Your task to perform on an android device: turn notification dots on Image 0: 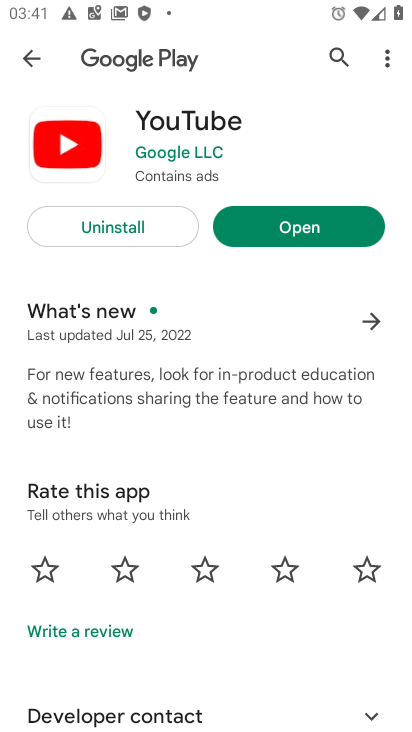
Step 0: press home button
Your task to perform on an android device: turn notification dots on Image 1: 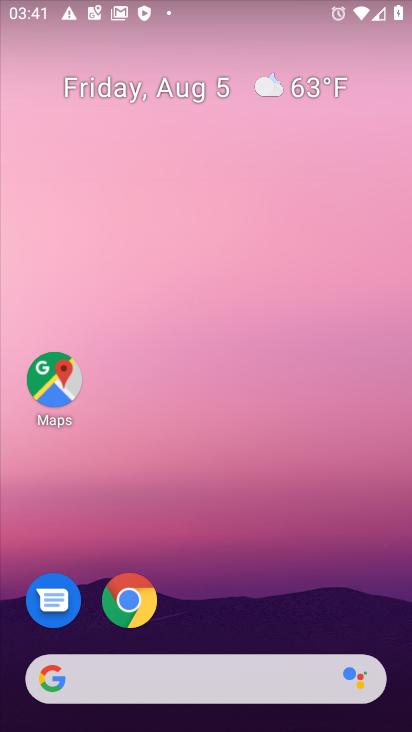
Step 1: drag from (170, 681) to (210, 44)
Your task to perform on an android device: turn notification dots on Image 2: 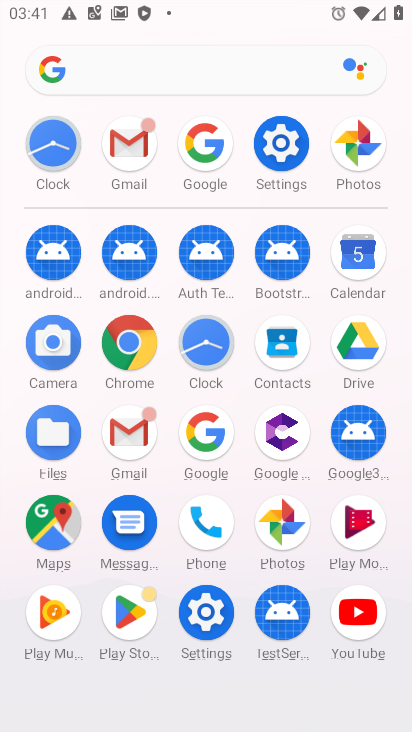
Step 2: click (277, 144)
Your task to perform on an android device: turn notification dots on Image 3: 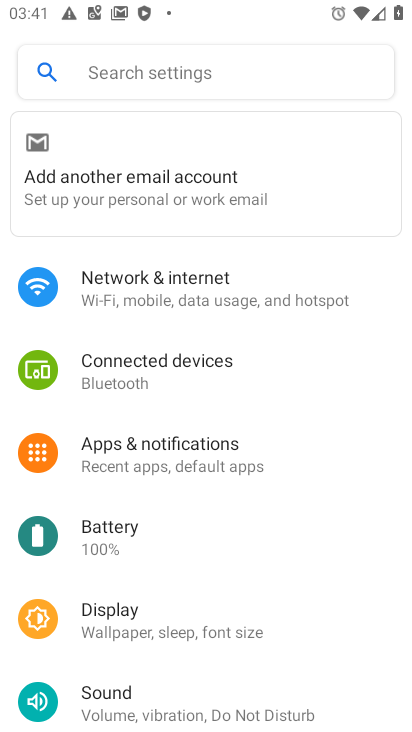
Step 3: click (199, 459)
Your task to perform on an android device: turn notification dots on Image 4: 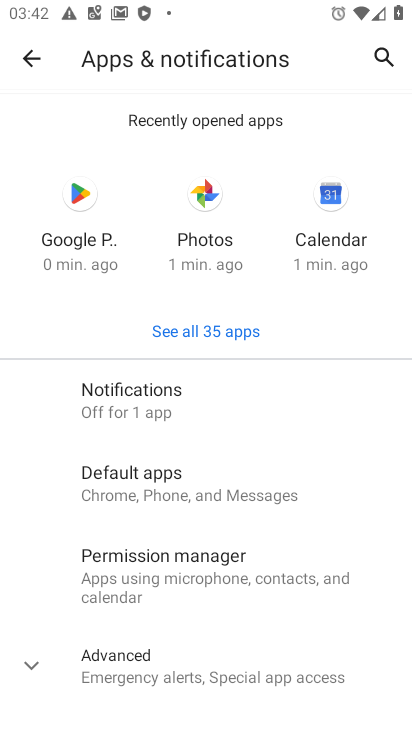
Step 4: click (123, 398)
Your task to perform on an android device: turn notification dots on Image 5: 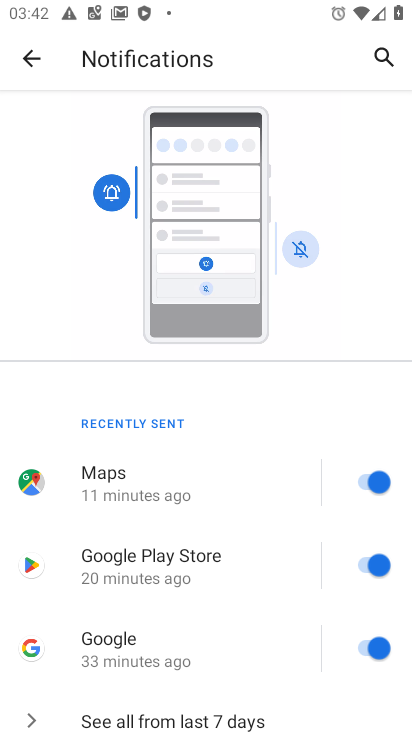
Step 5: drag from (138, 606) to (193, 287)
Your task to perform on an android device: turn notification dots on Image 6: 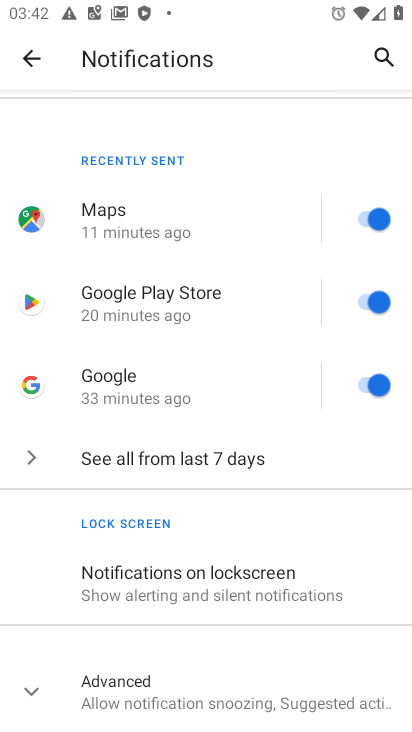
Step 6: click (143, 697)
Your task to perform on an android device: turn notification dots on Image 7: 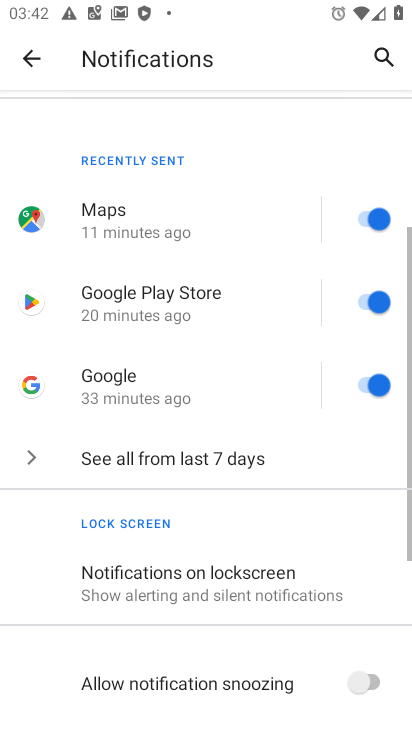
Step 7: task complete